Your task to perform on an android device: read, delete, or share a saved page in the chrome app Image 0: 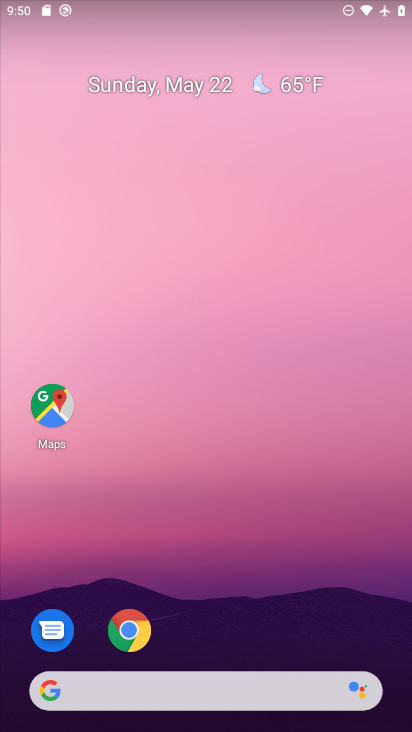
Step 0: press home button
Your task to perform on an android device: read, delete, or share a saved page in the chrome app Image 1: 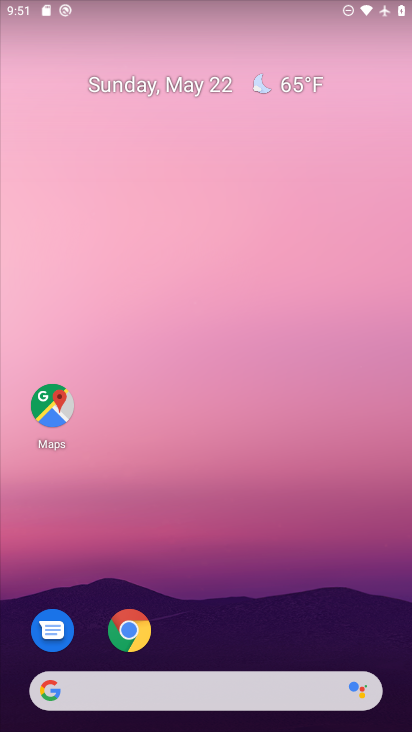
Step 1: click (133, 639)
Your task to perform on an android device: read, delete, or share a saved page in the chrome app Image 2: 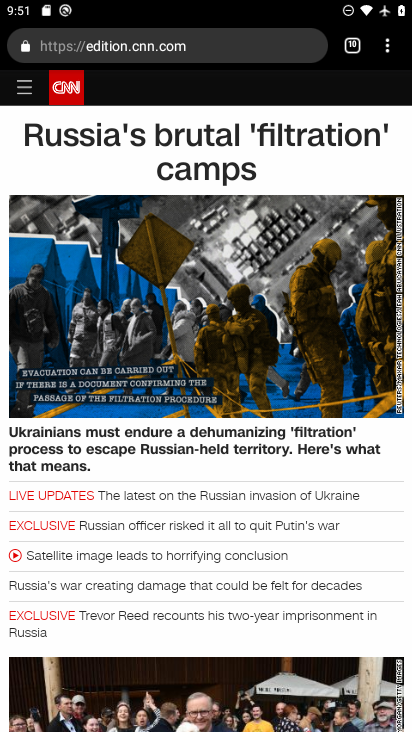
Step 2: drag from (387, 53) to (245, 300)
Your task to perform on an android device: read, delete, or share a saved page in the chrome app Image 3: 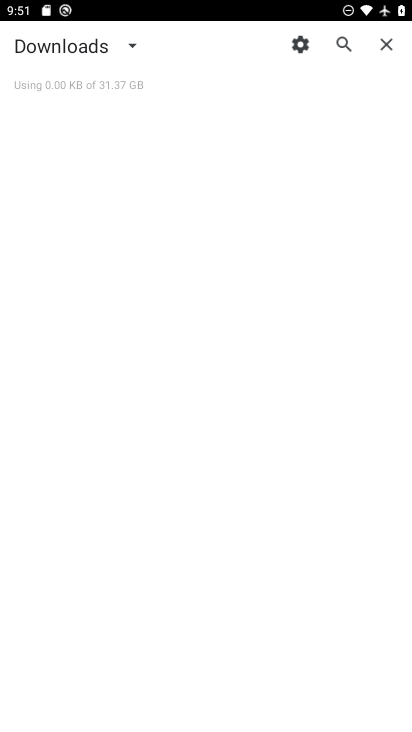
Step 3: click (109, 41)
Your task to perform on an android device: read, delete, or share a saved page in the chrome app Image 4: 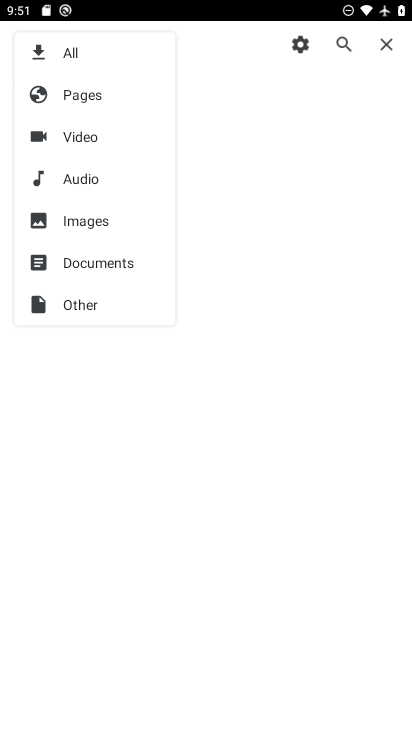
Step 4: click (81, 103)
Your task to perform on an android device: read, delete, or share a saved page in the chrome app Image 5: 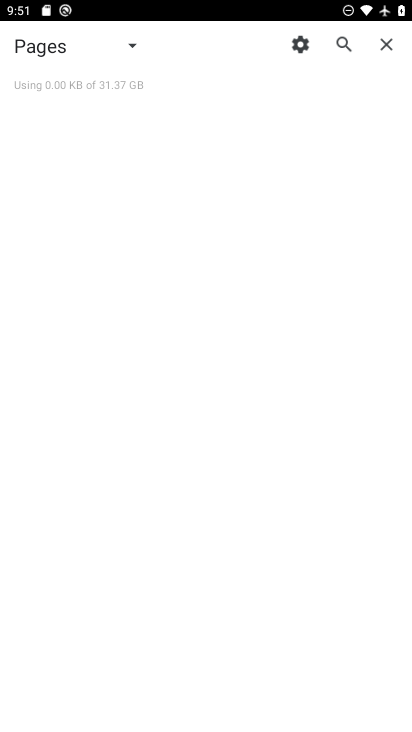
Step 5: task complete